Your task to perform on an android device: Open eBay Image 0: 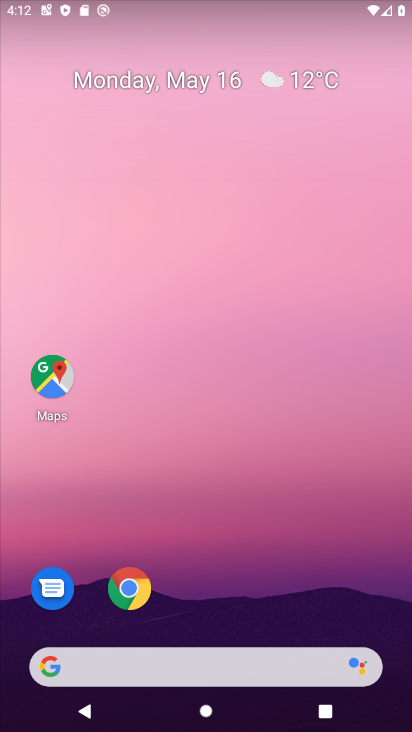
Step 0: click (134, 583)
Your task to perform on an android device: Open eBay Image 1: 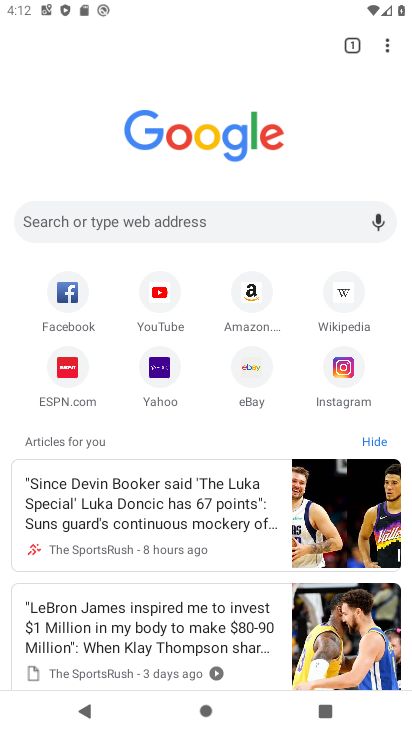
Step 1: click (95, 222)
Your task to perform on an android device: Open eBay Image 2: 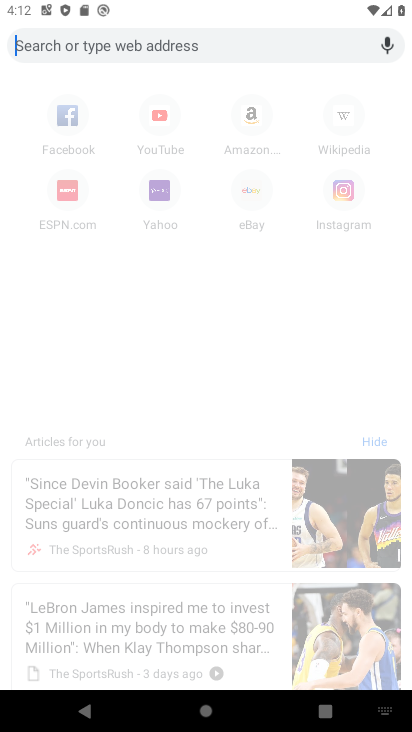
Step 2: type "ebay"
Your task to perform on an android device: Open eBay Image 3: 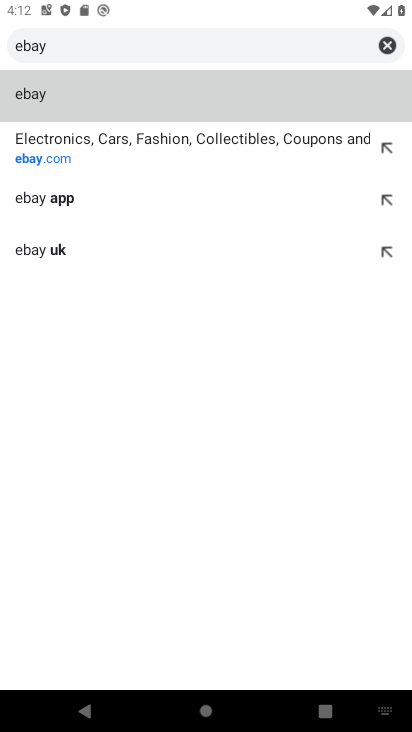
Step 3: click (96, 146)
Your task to perform on an android device: Open eBay Image 4: 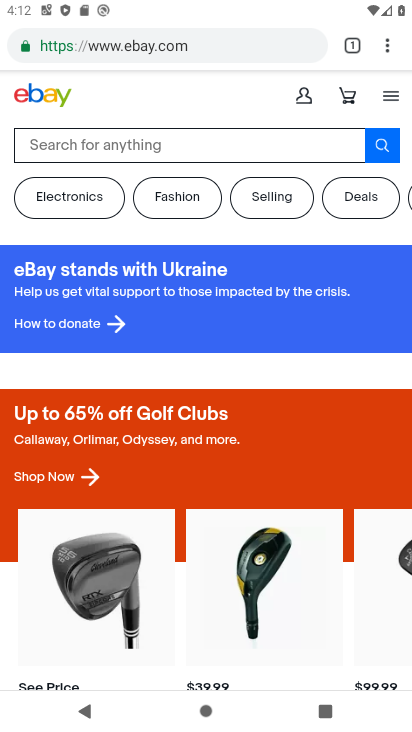
Step 4: task complete